Your task to perform on an android device: Open Maps and search for coffee Image 0: 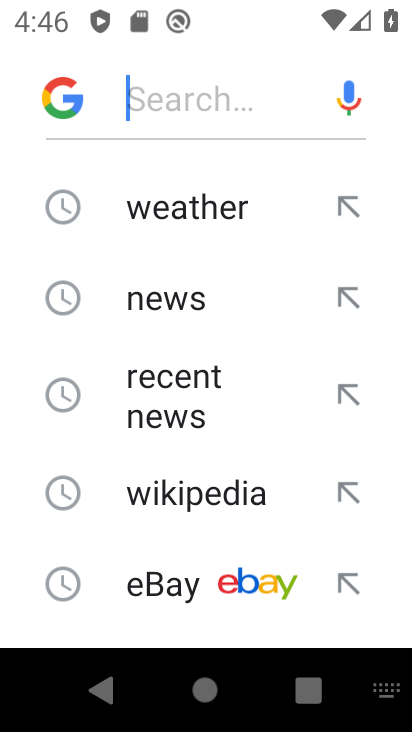
Step 0: press home button
Your task to perform on an android device: Open Maps and search for coffee Image 1: 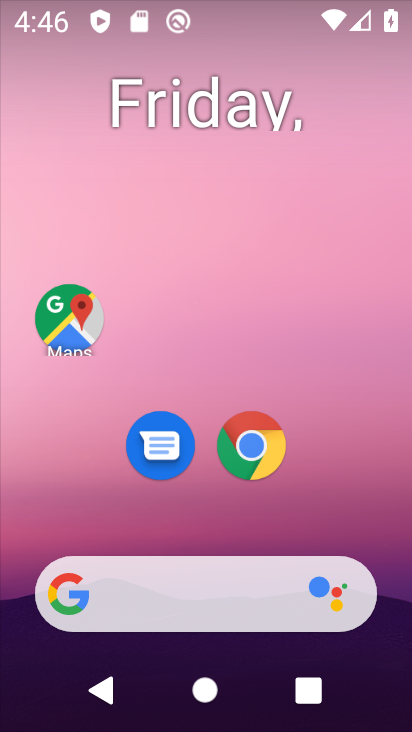
Step 1: click (65, 304)
Your task to perform on an android device: Open Maps and search for coffee Image 2: 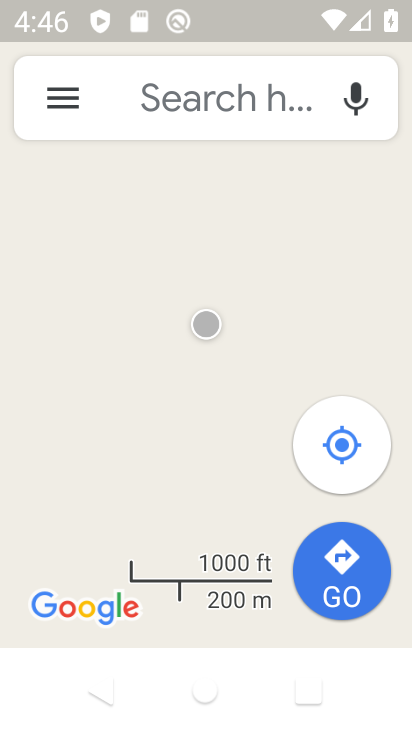
Step 2: click (202, 82)
Your task to perform on an android device: Open Maps and search for coffee Image 3: 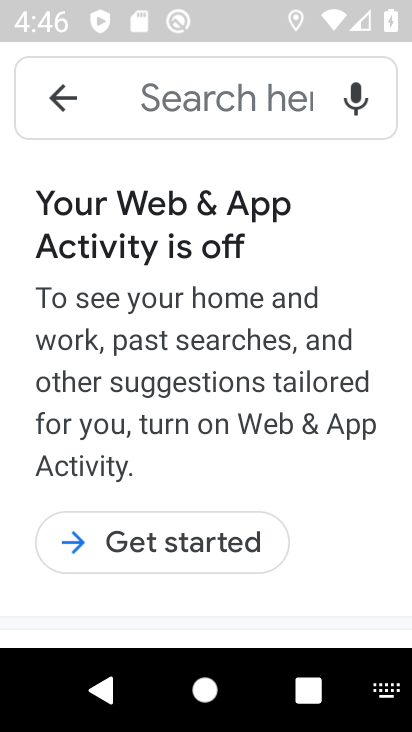
Step 3: type "coffee"
Your task to perform on an android device: Open Maps and search for coffee Image 4: 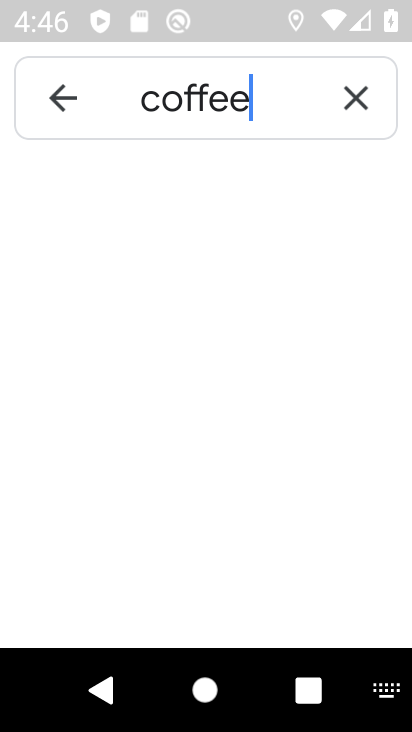
Step 4: task complete